Your task to perform on an android device: Open sound settings Image 0: 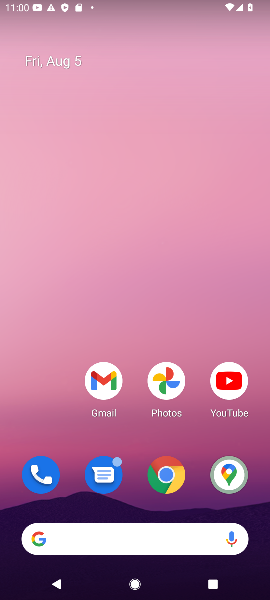
Step 0: drag from (131, 517) to (132, 44)
Your task to perform on an android device: Open sound settings Image 1: 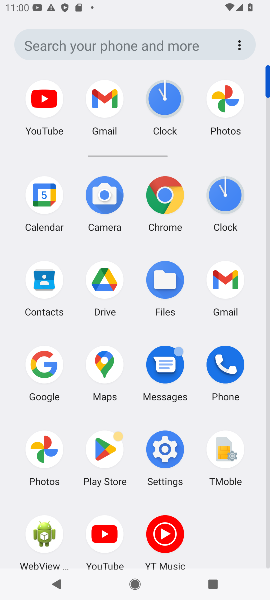
Step 1: click (173, 457)
Your task to perform on an android device: Open sound settings Image 2: 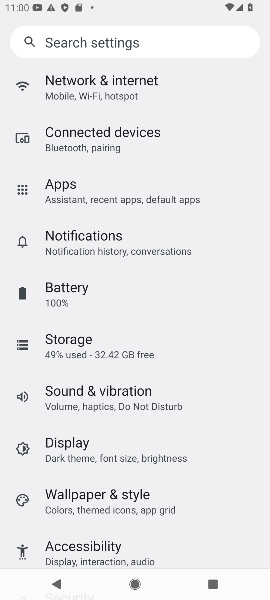
Step 2: drag from (127, 275) to (131, 445)
Your task to perform on an android device: Open sound settings Image 3: 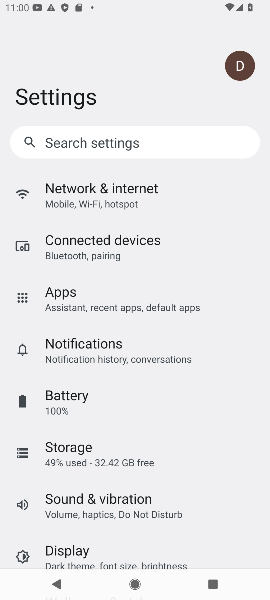
Step 3: click (91, 505)
Your task to perform on an android device: Open sound settings Image 4: 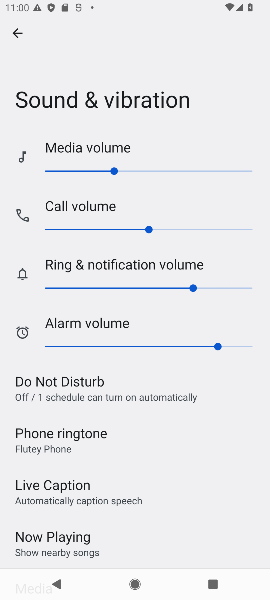
Step 4: task complete